Your task to perform on an android device: Open maps Image 0: 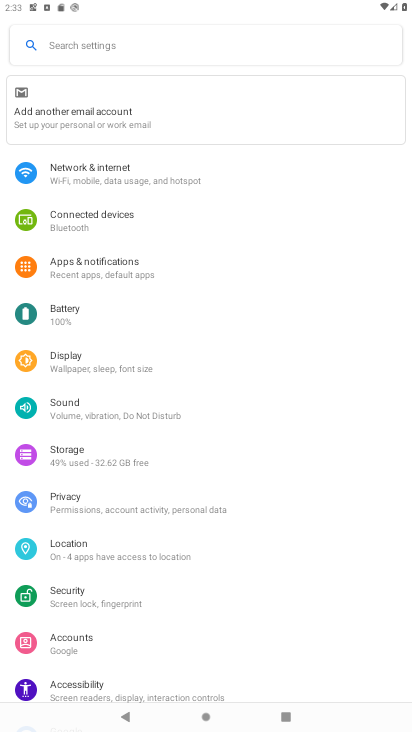
Step 0: press home button
Your task to perform on an android device: Open maps Image 1: 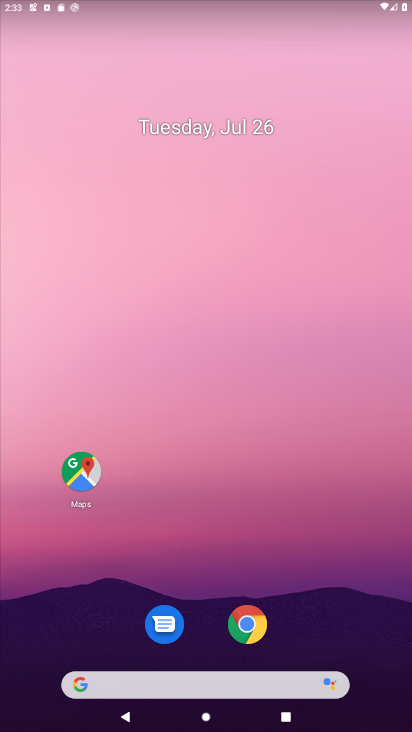
Step 1: click (88, 474)
Your task to perform on an android device: Open maps Image 2: 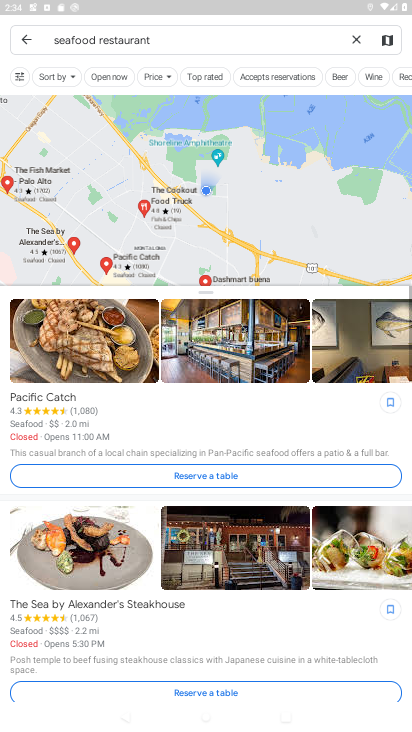
Step 2: click (357, 43)
Your task to perform on an android device: Open maps Image 3: 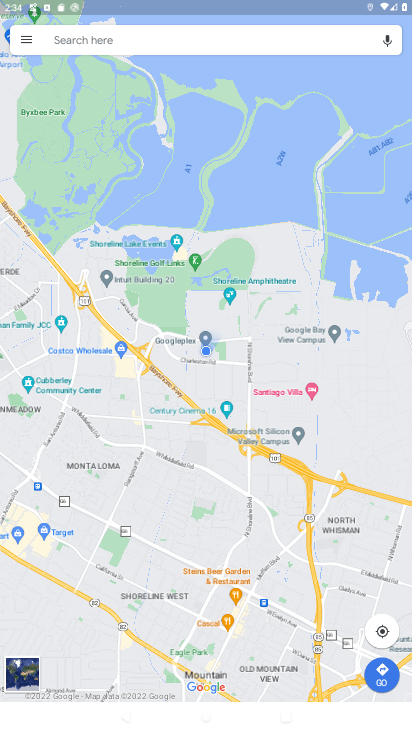
Step 3: task complete